Your task to perform on an android device: change the upload size in google photos Image 0: 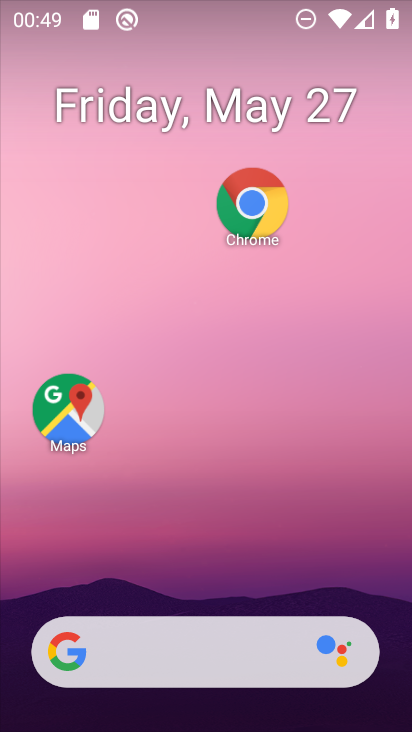
Step 0: drag from (152, 591) to (201, 239)
Your task to perform on an android device: change the upload size in google photos Image 1: 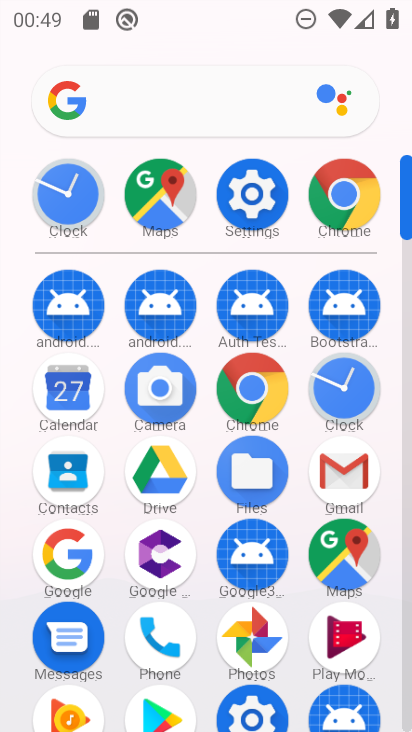
Step 1: click (245, 633)
Your task to perform on an android device: change the upload size in google photos Image 2: 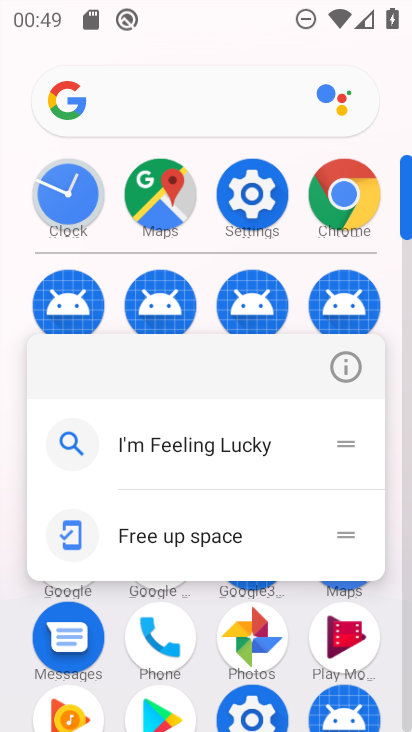
Step 2: click (340, 367)
Your task to perform on an android device: change the upload size in google photos Image 3: 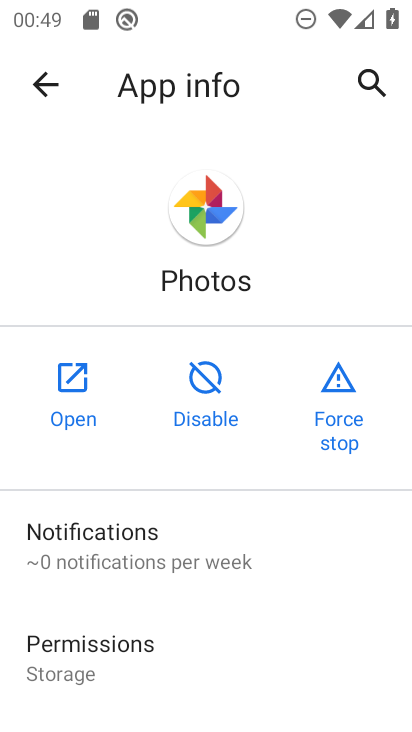
Step 3: click (71, 388)
Your task to perform on an android device: change the upload size in google photos Image 4: 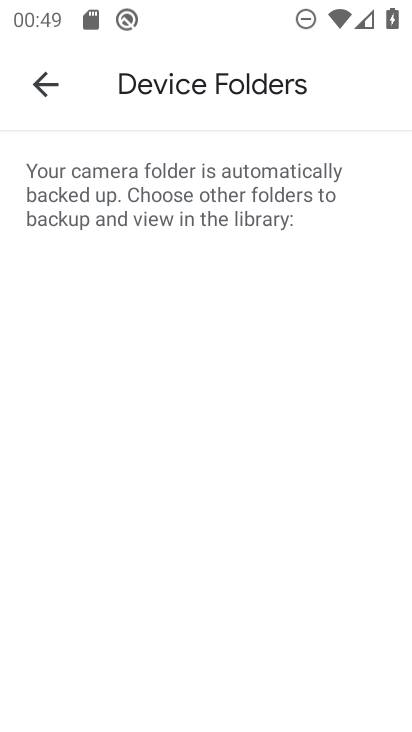
Step 4: click (46, 85)
Your task to perform on an android device: change the upload size in google photos Image 5: 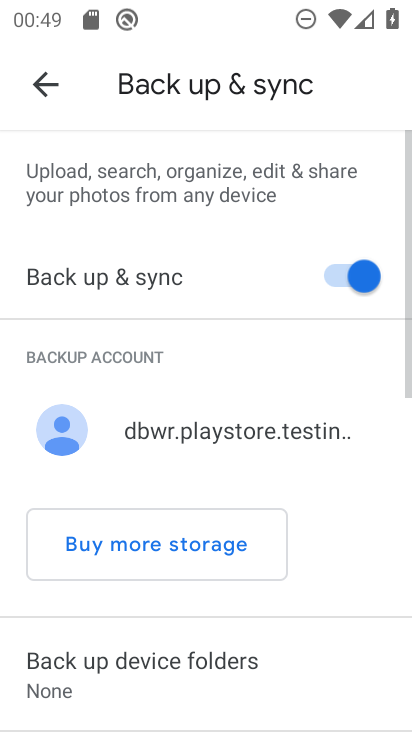
Step 5: click (51, 96)
Your task to perform on an android device: change the upload size in google photos Image 6: 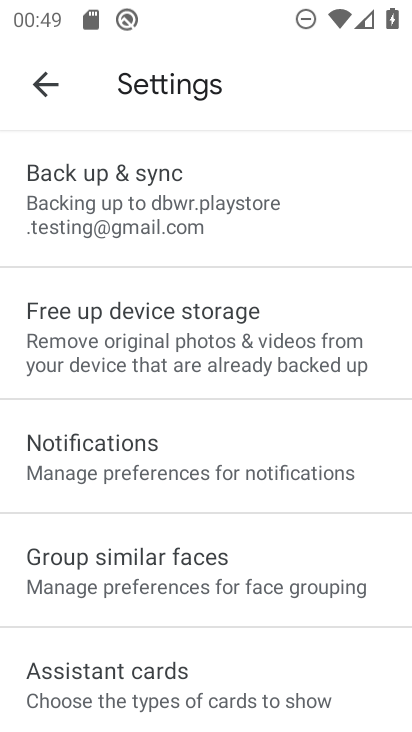
Step 6: click (49, 89)
Your task to perform on an android device: change the upload size in google photos Image 7: 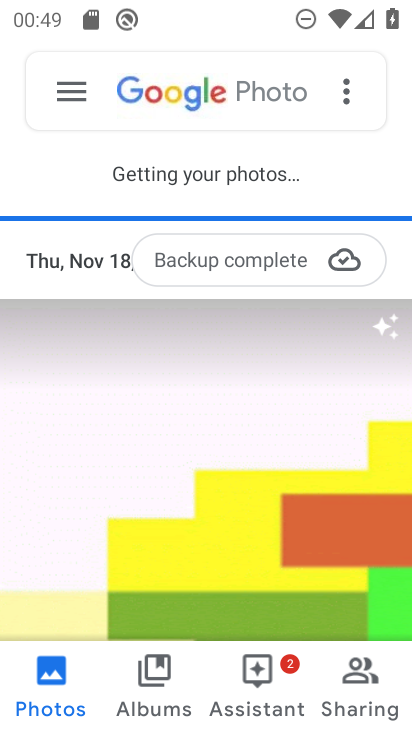
Step 7: drag from (171, 569) to (189, 205)
Your task to perform on an android device: change the upload size in google photos Image 8: 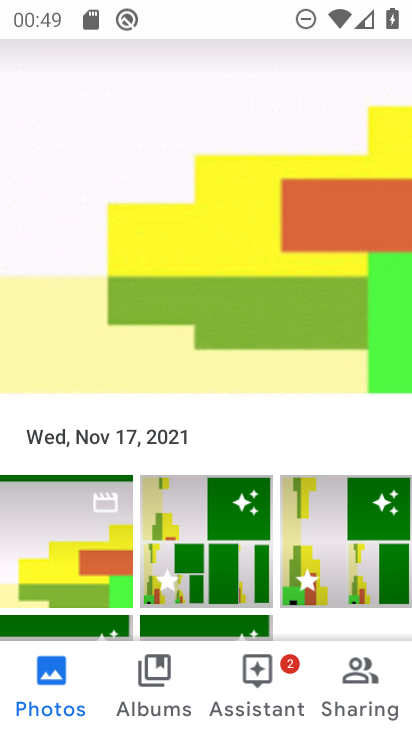
Step 8: drag from (126, 208) to (252, 512)
Your task to perform on an android device: change the upload size in google photos Image 9: 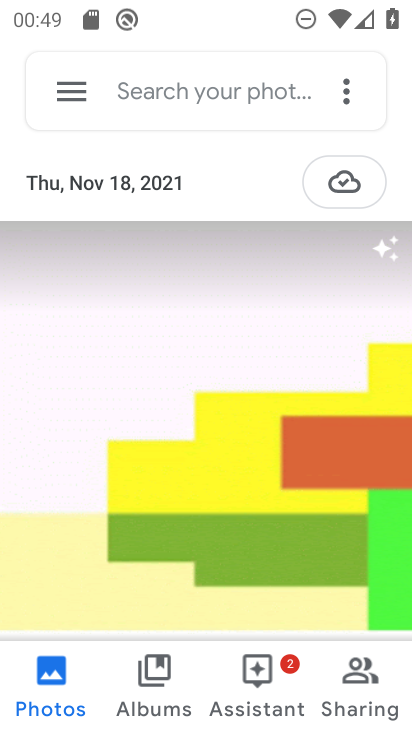
Step 9: click (87, 99)
Your task to perform on an android device: change the upload size in google photos Image 10: 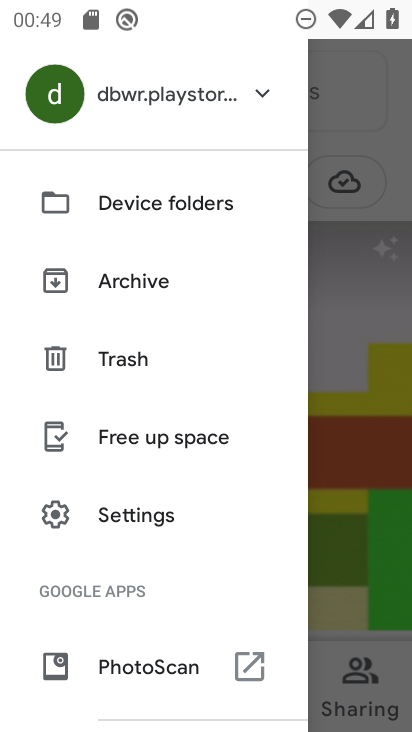
Step 10: click (161, 512)
Your task to perform on an android device: change the upload size in google photos Image 11: 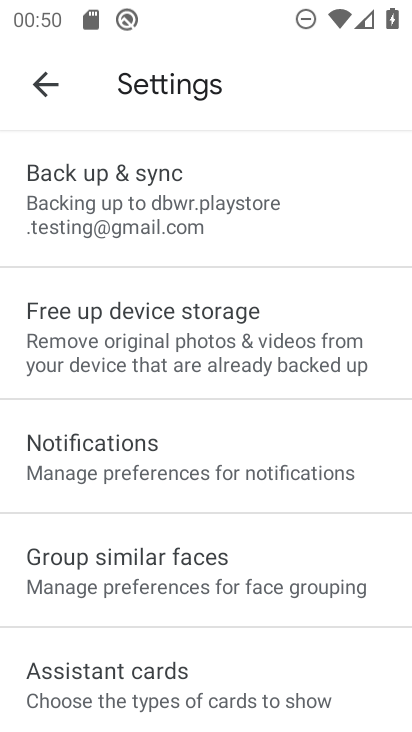
Step 11: click (151, 210)
Your task to perform on an android device: change the upload size in google photos Image 12: 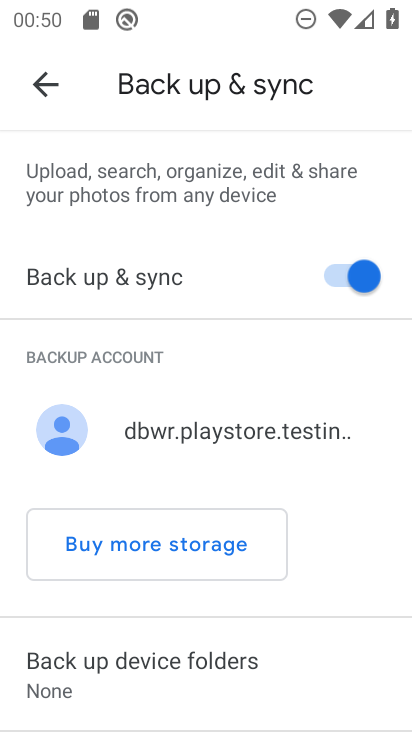
Step 12: drag from (241, 686) to (247, 301)
Your task to perform on an android device: change the upload size in google photos Image 13: 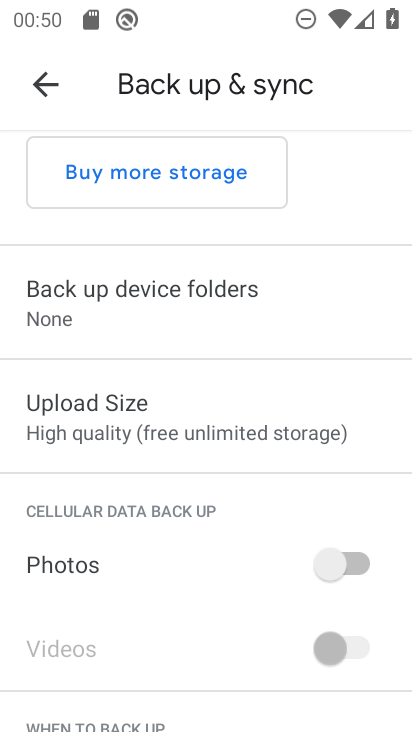
Step 13: click (241, 415)
Your task to perform on an android device: change the upload size in google photos Image 14: 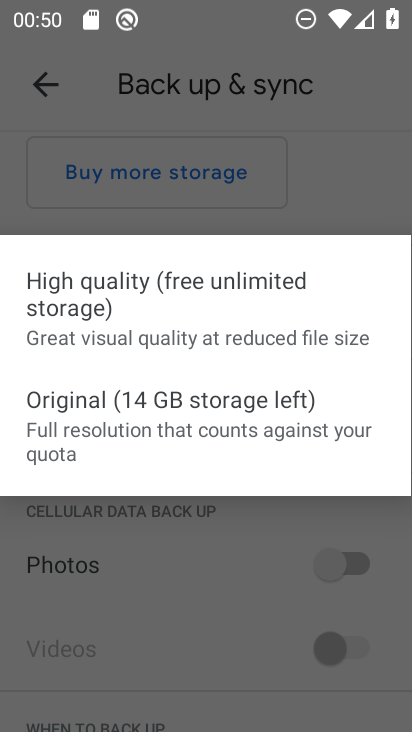
Step 14: click (196, 294)
Your task to perform on an android device: change the upload size in google photos Image 15: 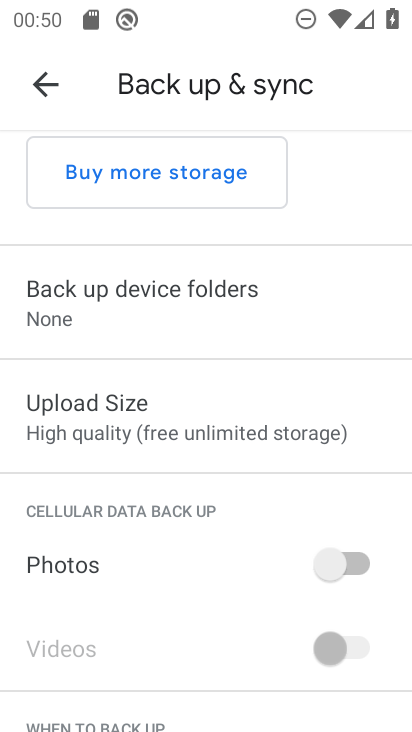
Step 15: task complete